Your task to perform on an android device: Open privacy settings Image 0: 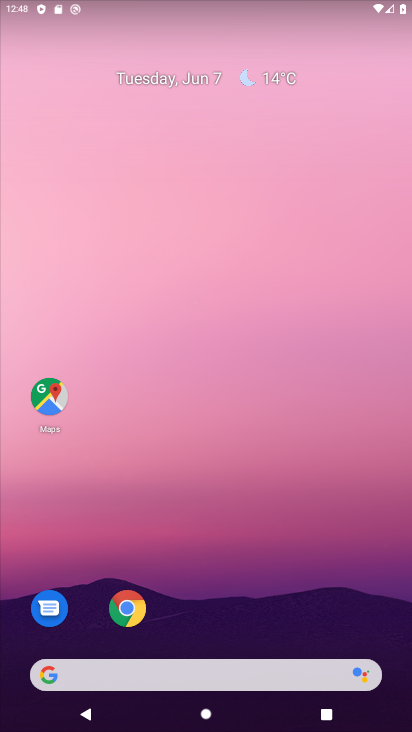
Step 0: drag from (268, 622) to (248, 95)
Your task to perform on an android device: Open privacy settings Image 1: 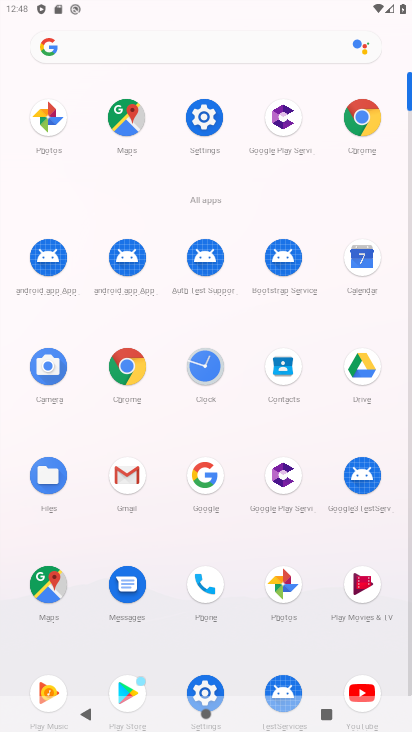
Step 1: click (201, 112)
Your task to perform on an android device: Open privacy settings Image 2: 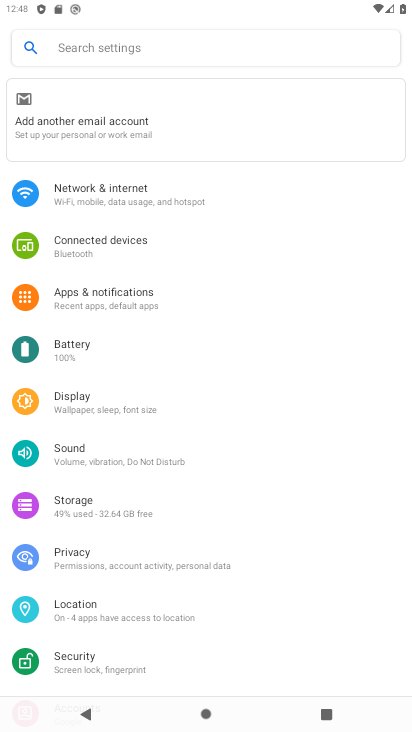
Step 2: click (104, 561)
Your task to perform on an android device: Open privacy settings Image 3: 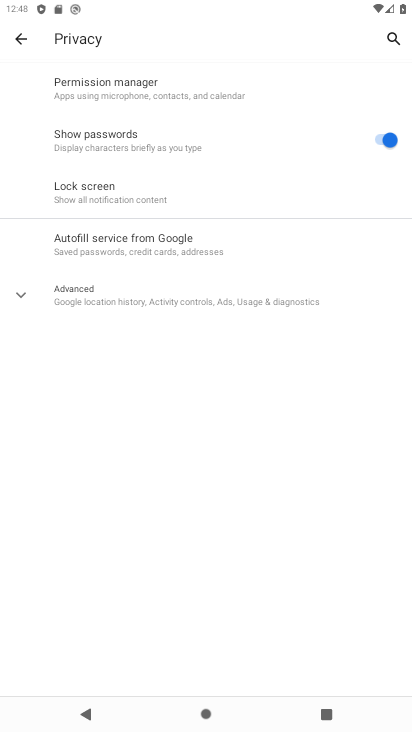
Step 3: task complete